Your task to perform on an android device: Search for razer blade on amazon, select the first entry, and add it to the cart. Image 0: 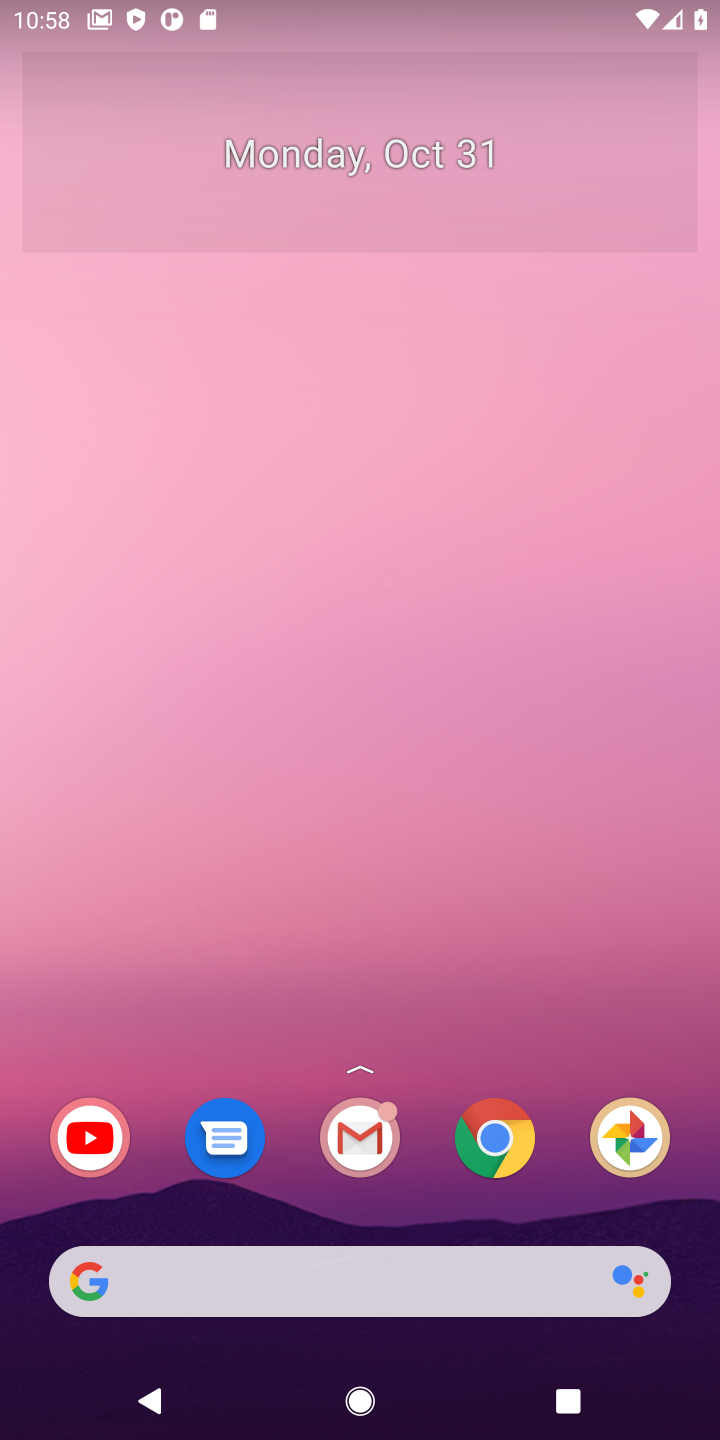
Step 0: click (504, 1152)
Your task to perform on an android device: Search for razer blade on amazon, select the first entry, and add it to the cart. Image 1: 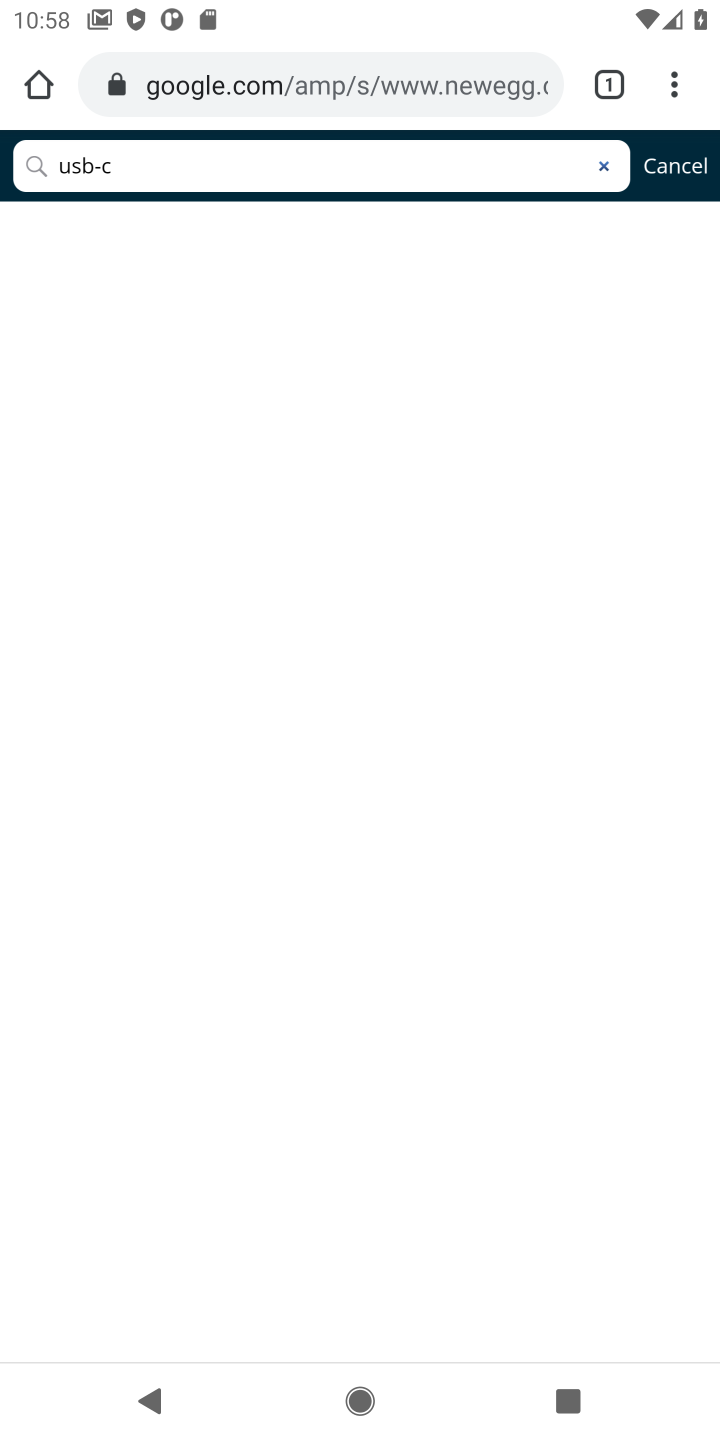
Step 1: click (269, 86)
Your task to perform on an android device: Search for razer blade on amazon, select the first entry, and add it to the cart. Image 2: 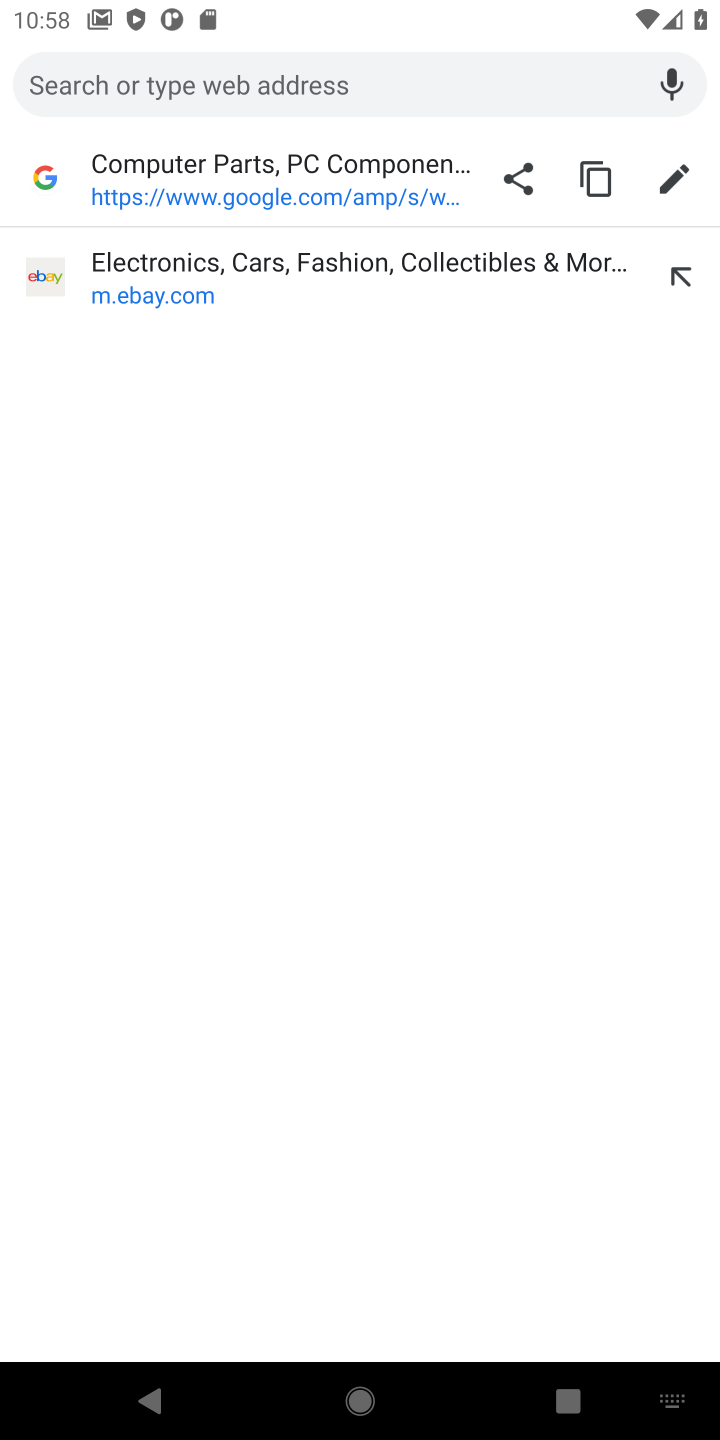
Step 2: type "amazon"
Your task to perform on an android device: Search for razer blade on amazon, select the first entry, and add it to the cart. Image 3: 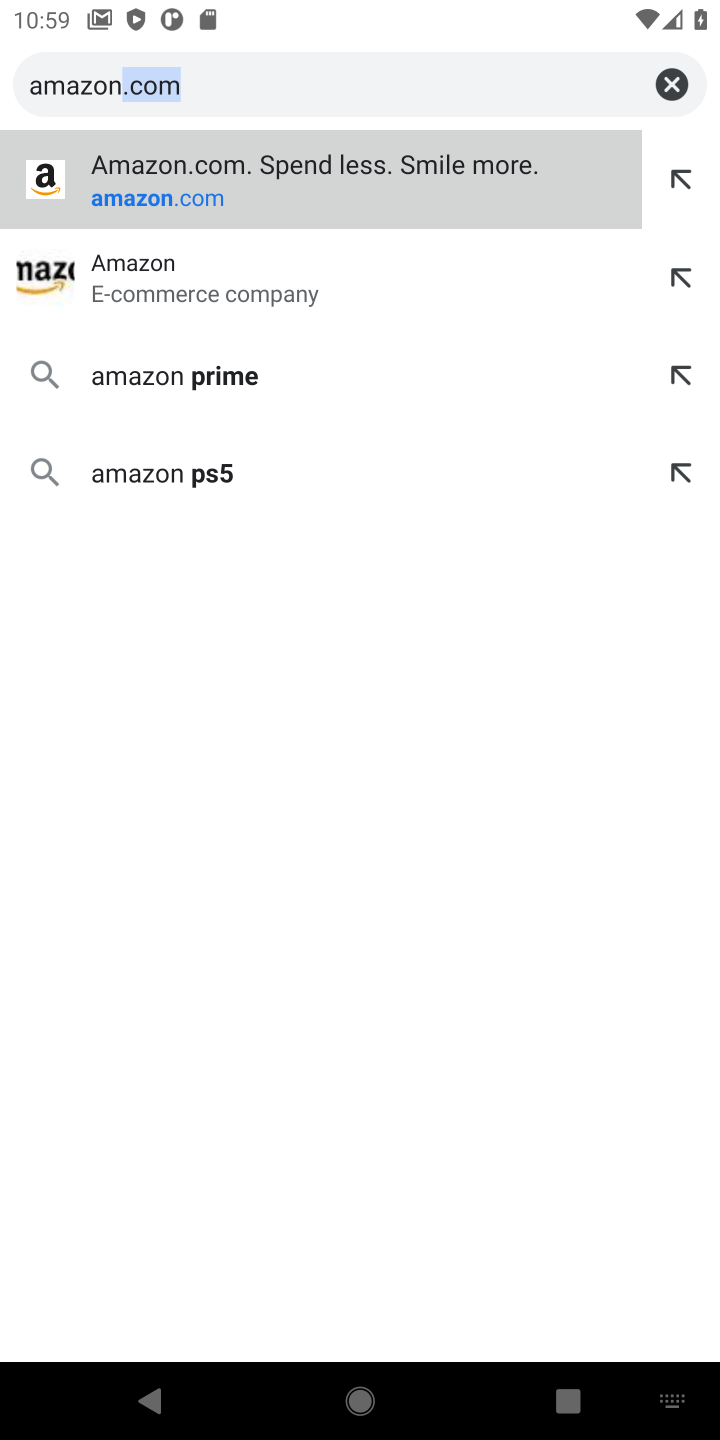
Step 3: click (240, 170)
Your task to perform on an android device: Search for razer blade on amazon, select the first entry, and add it to the cart. Image 4: 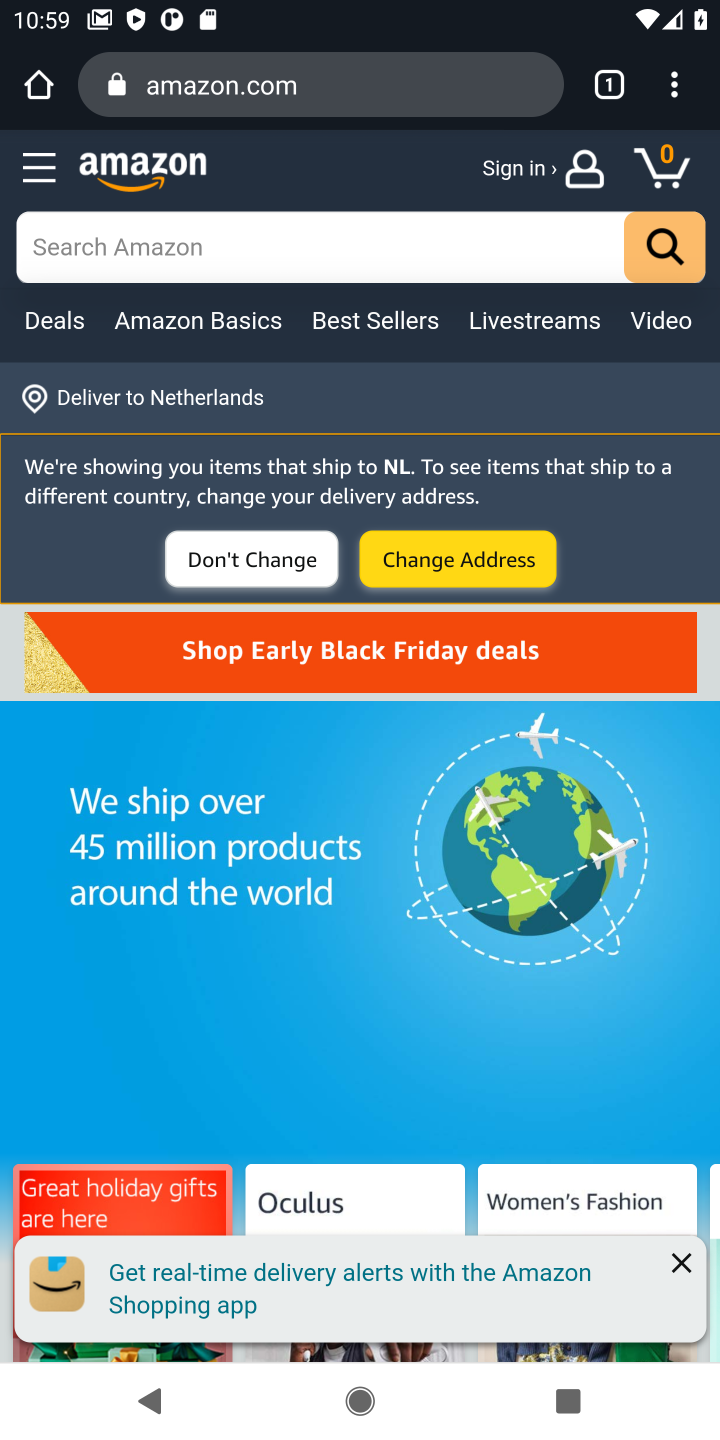
Step 4: click (219, 218)
Your task to perform on an android device: Search for razer blade on amazon, select the first entry, and add it to the cart. Image 5: 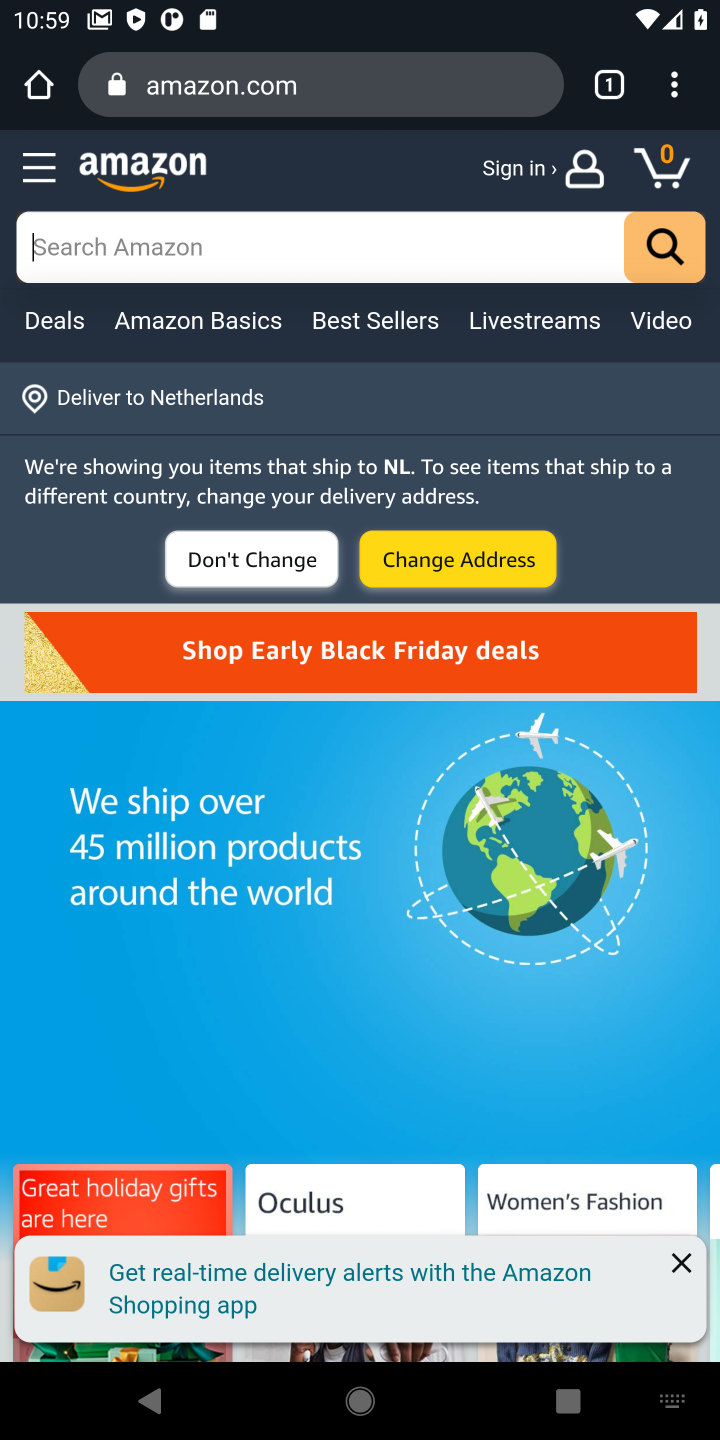
Step 5: type "razer blade"
Your task to perform on an android device: Search for razer blade on amazon, select the first entry, and add it to the cart. Image 6: 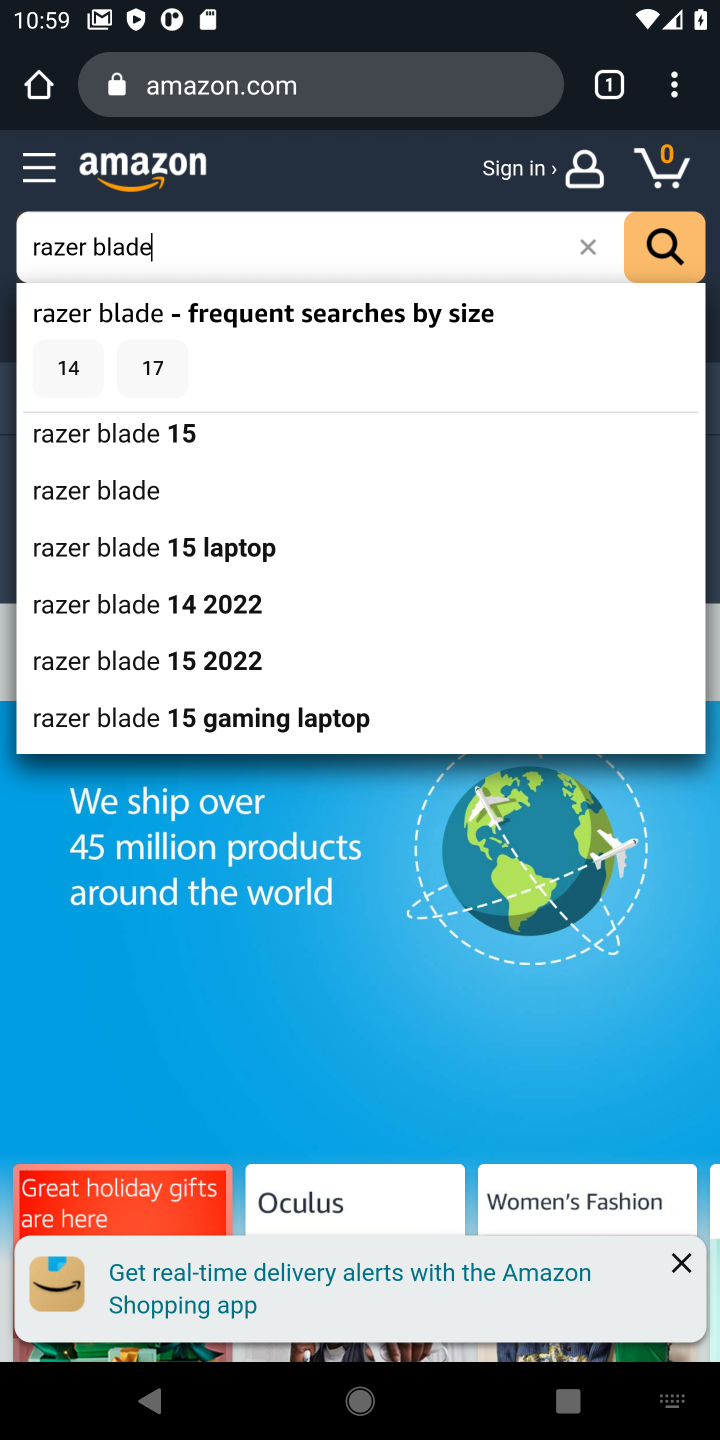
Step 6: click (145, 489)
Your task to perform on an android device: Search for razer blade on amazon, select the first entry, and add it to the cart. Image 7: 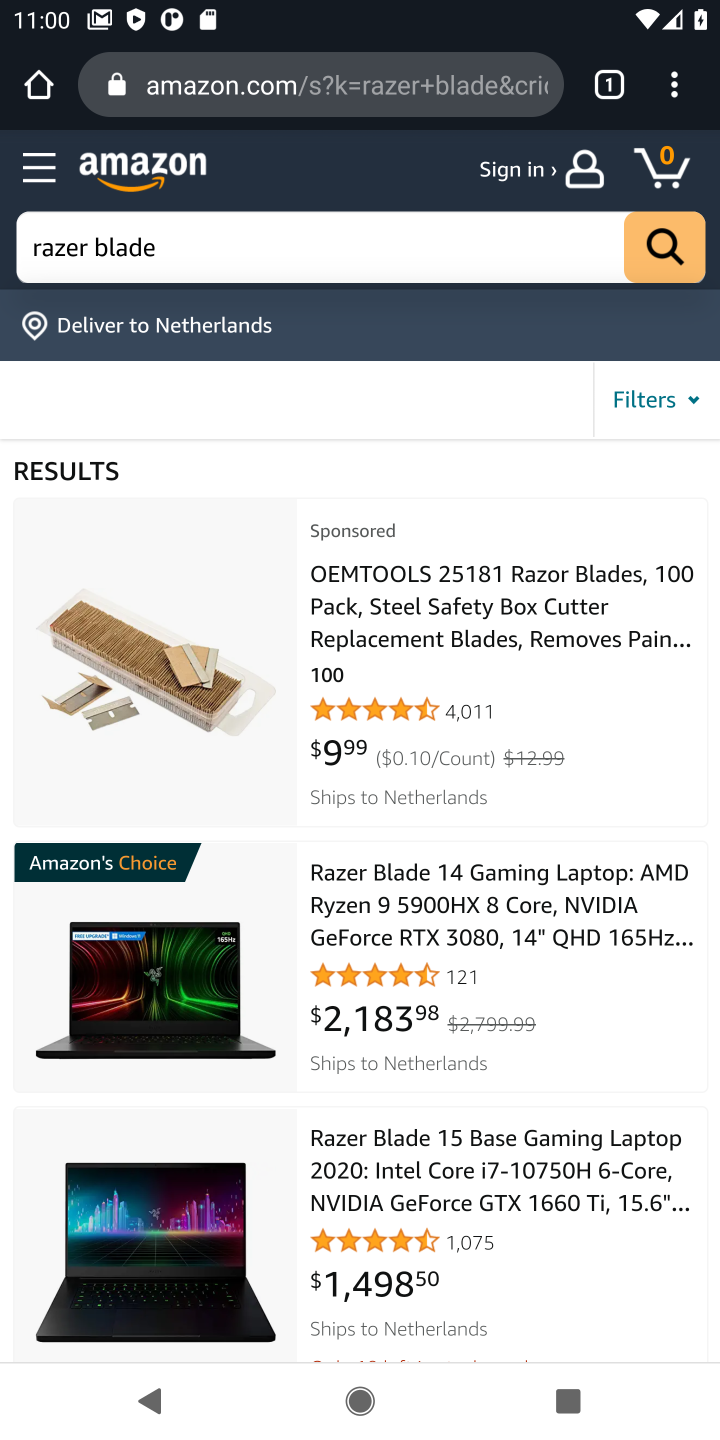
Step 7: click (417, 915)
Your task to perform on an android device: Search for razer blade on amazon, select the first entry, and add it to the cart. Image 8: 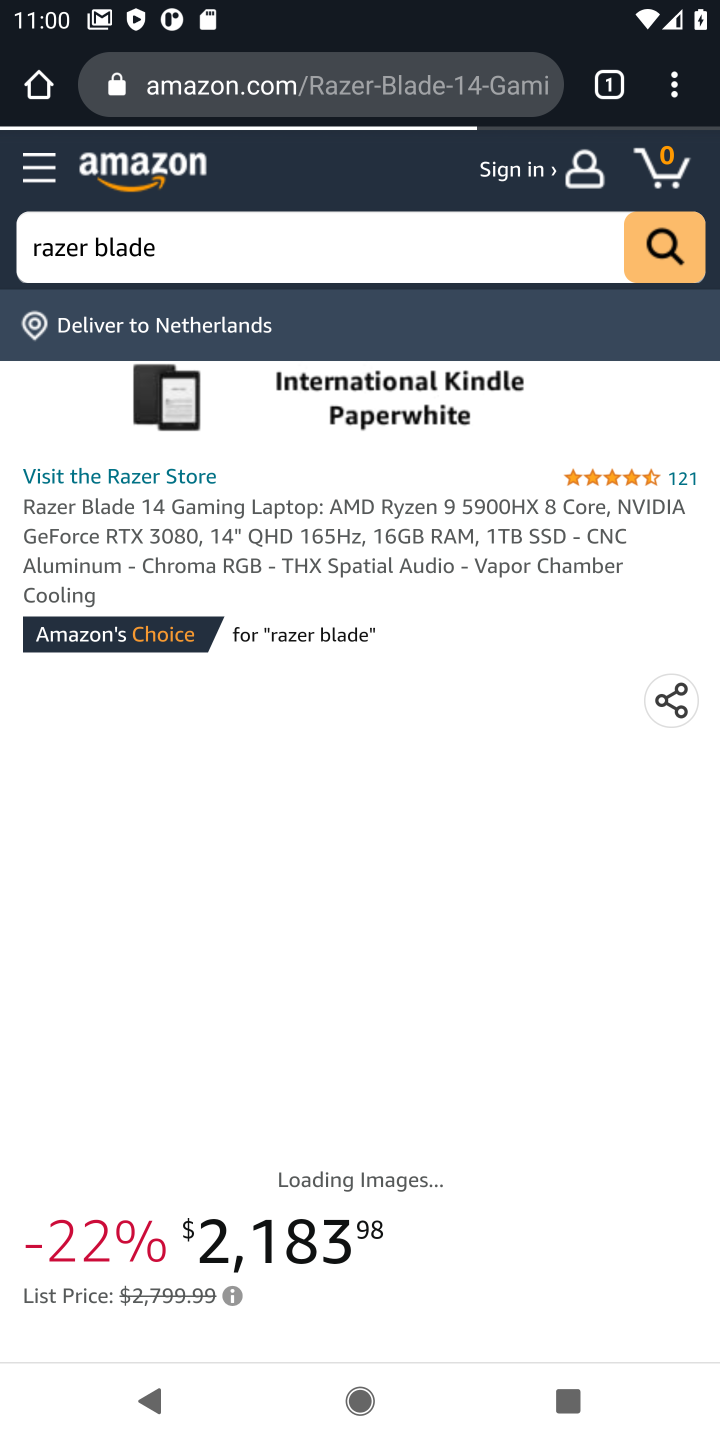
Step 8: click (409, 878)
Your task to perform on an android device: Search for razer blade on amazon, select the first entry, and add it to the cart. Image 9: 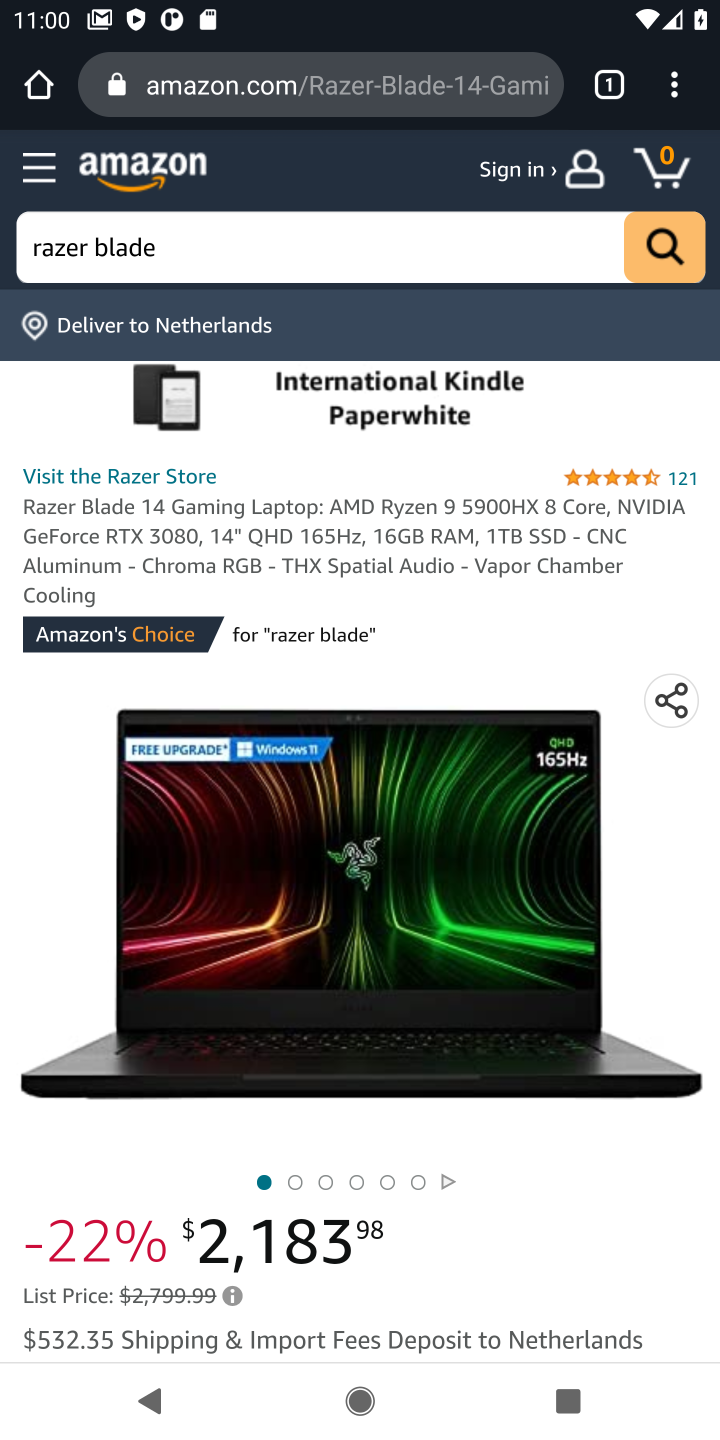
Step 9: click (398, 889)
Your task to perform on an android device: Search for razer blade on amazon, select the first entry, and add it to the cart. Image 10: 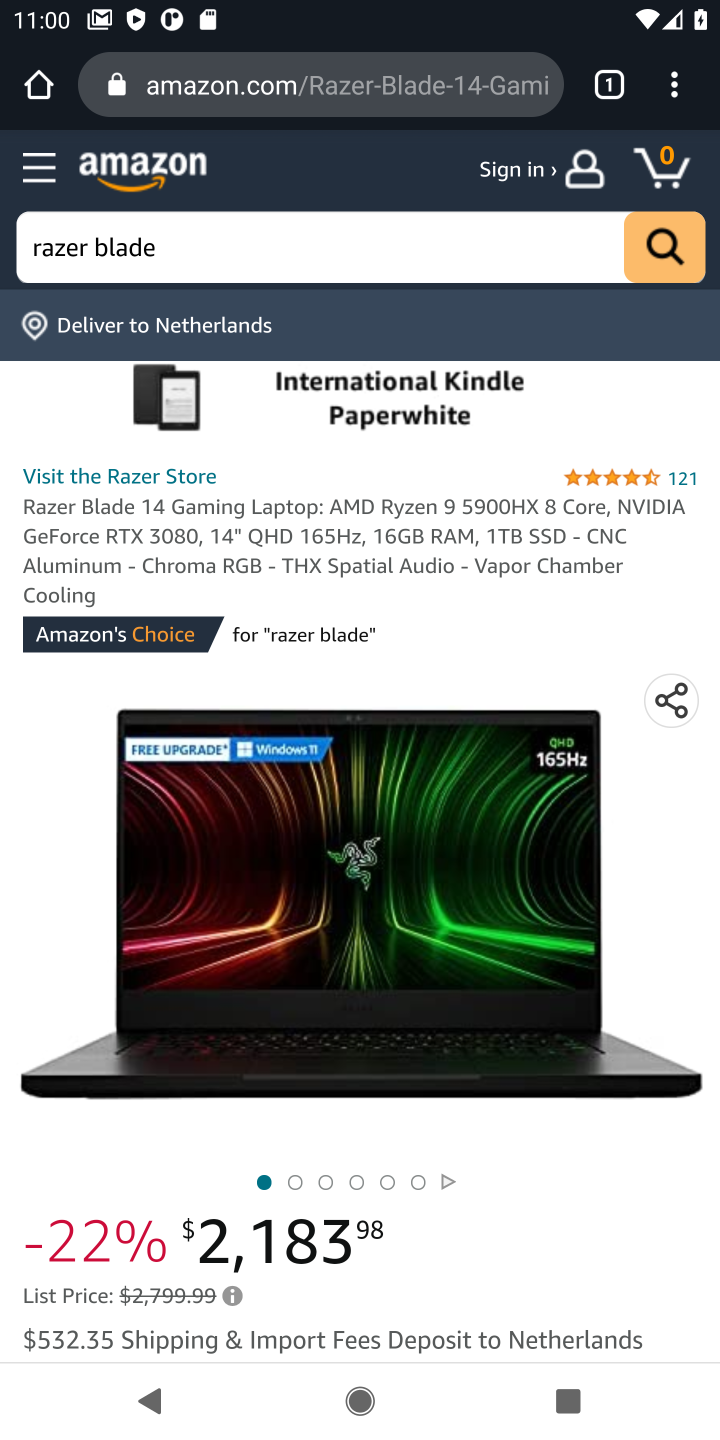
Step 10: drag from (344, 1023) to (290, 386)
Your task to perform on an android device: Search for razer blade on amazon, select the first entry, and add it to the cart. Image 11: 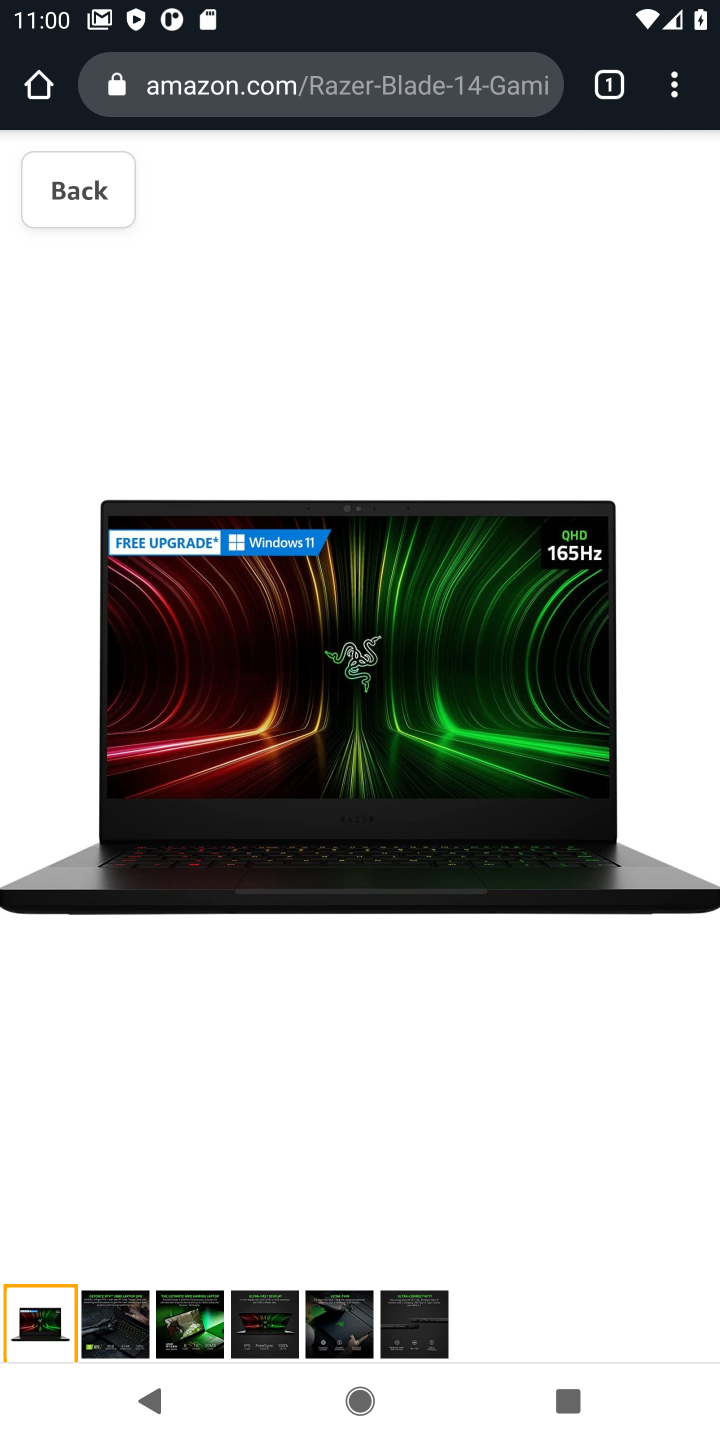
Step 11: drag from (462, 1297) to (539, 583)
Your task to perform on an android device: Search for razer blade on amazon, select the first entry, and add it to the cart. Image 12: 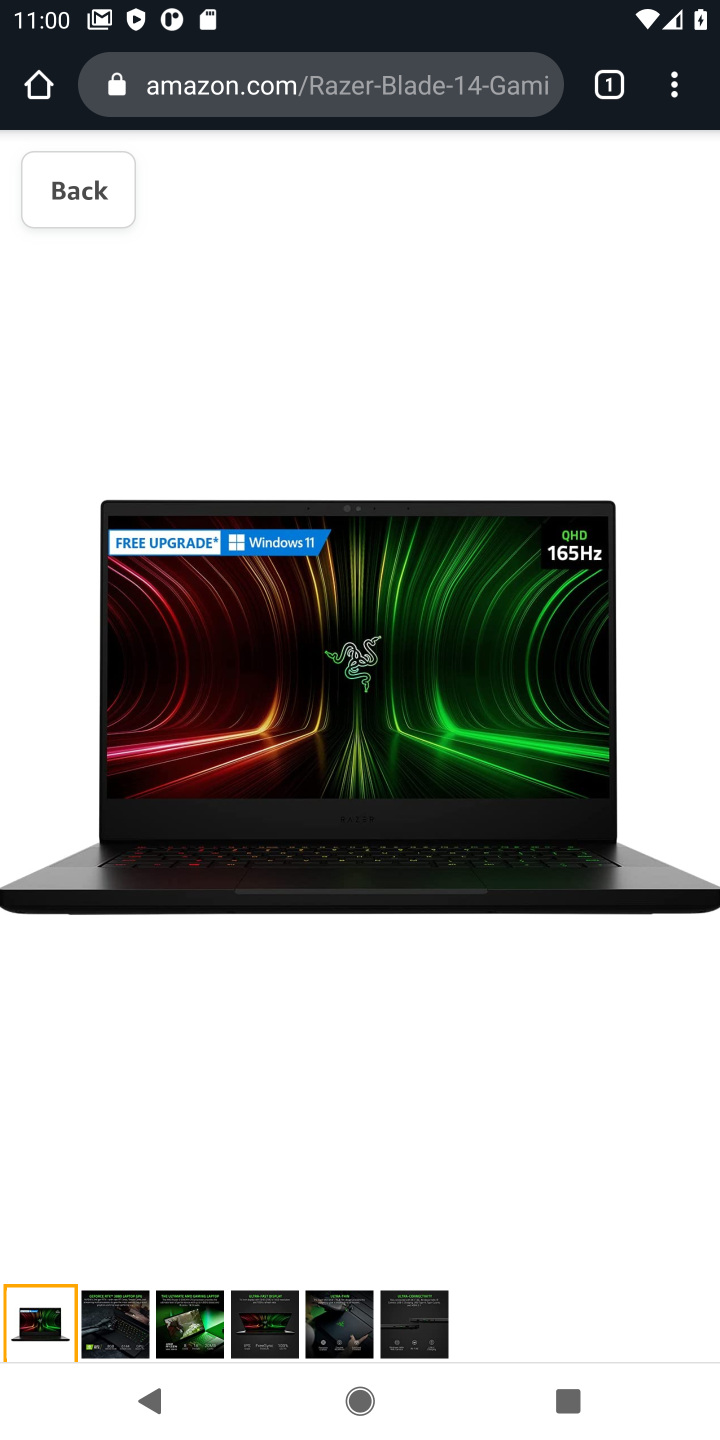
Step 12: click (83, 198)
Your task to perform on an android device: Search for razer blade on amazon, select the first entry, and add it to the cart. Image 13: 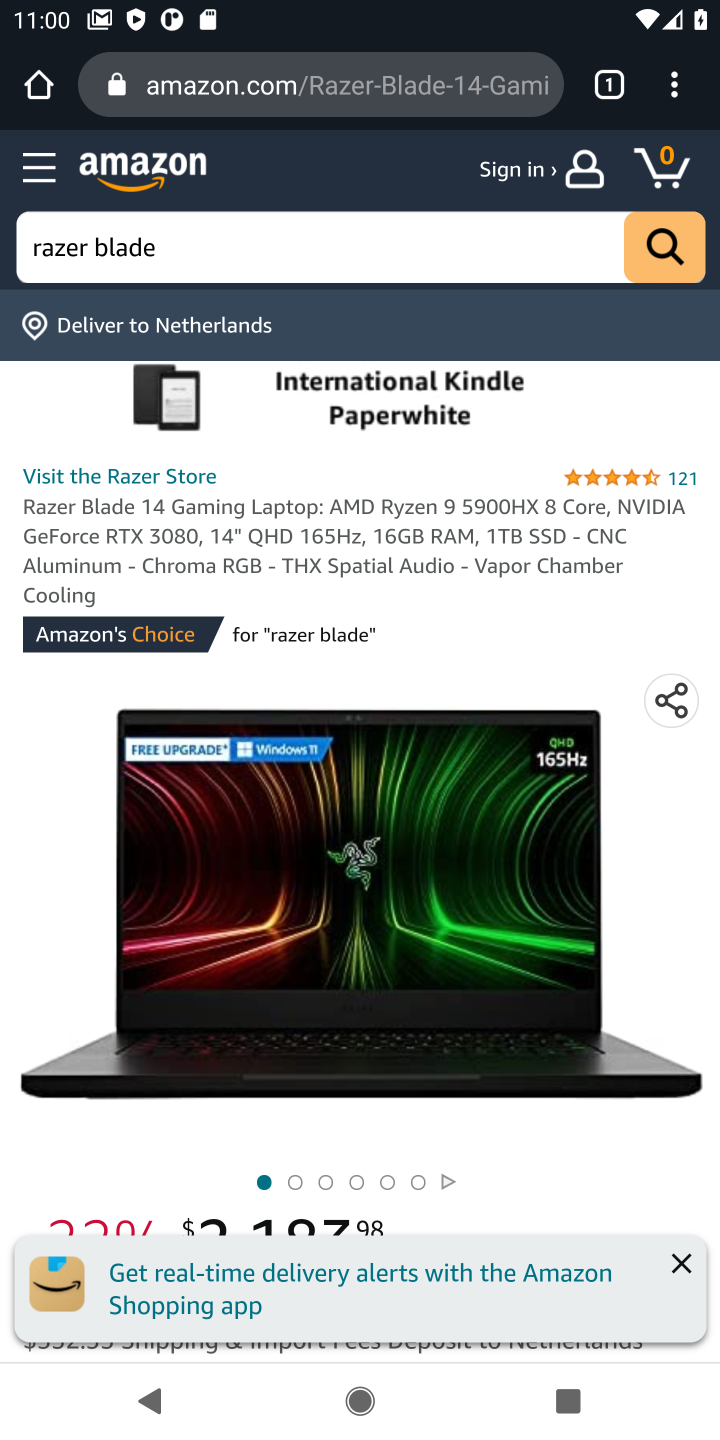
Step 13: drag from (512, 1203) to (507, 201)
Your task to perform on an android device: Search for razer blade on amazon, select the first entry, and add it to the cart. Image 14: 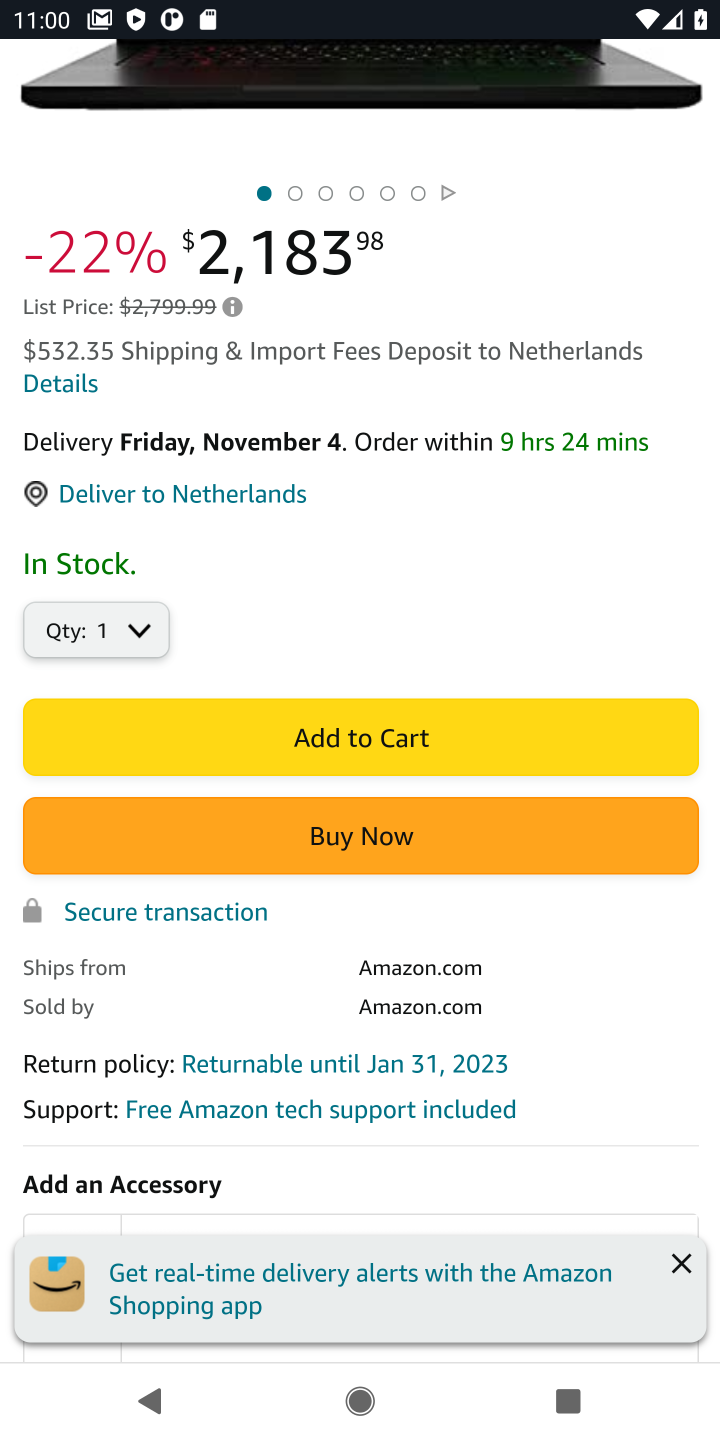
Step 14: click (446, 760)
Your task to perform on an android device: Search for razer blade on amazon, select the first entry, and add it to the cart. Image 15: 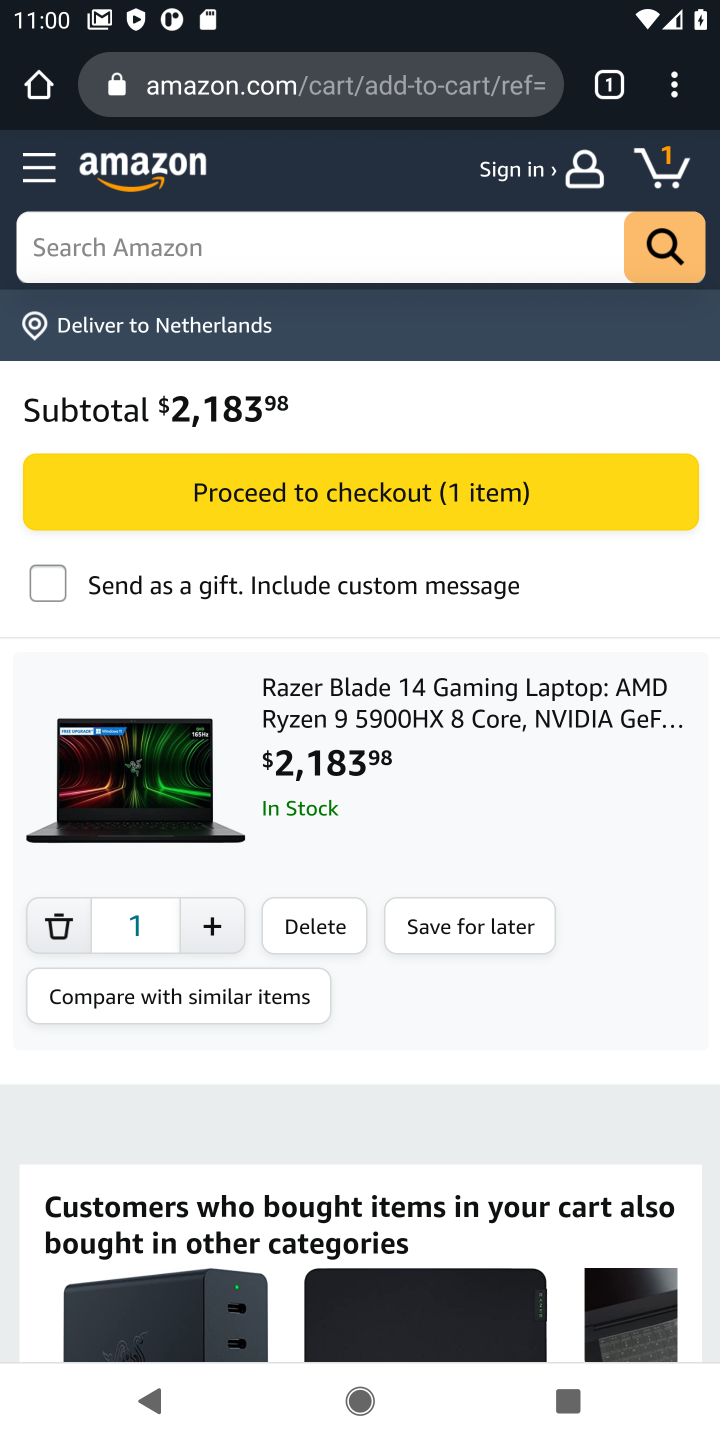
Step 15: task complete